Your task to perform on an android device: open app "Google Photos" (install if not already installed) Image 0: 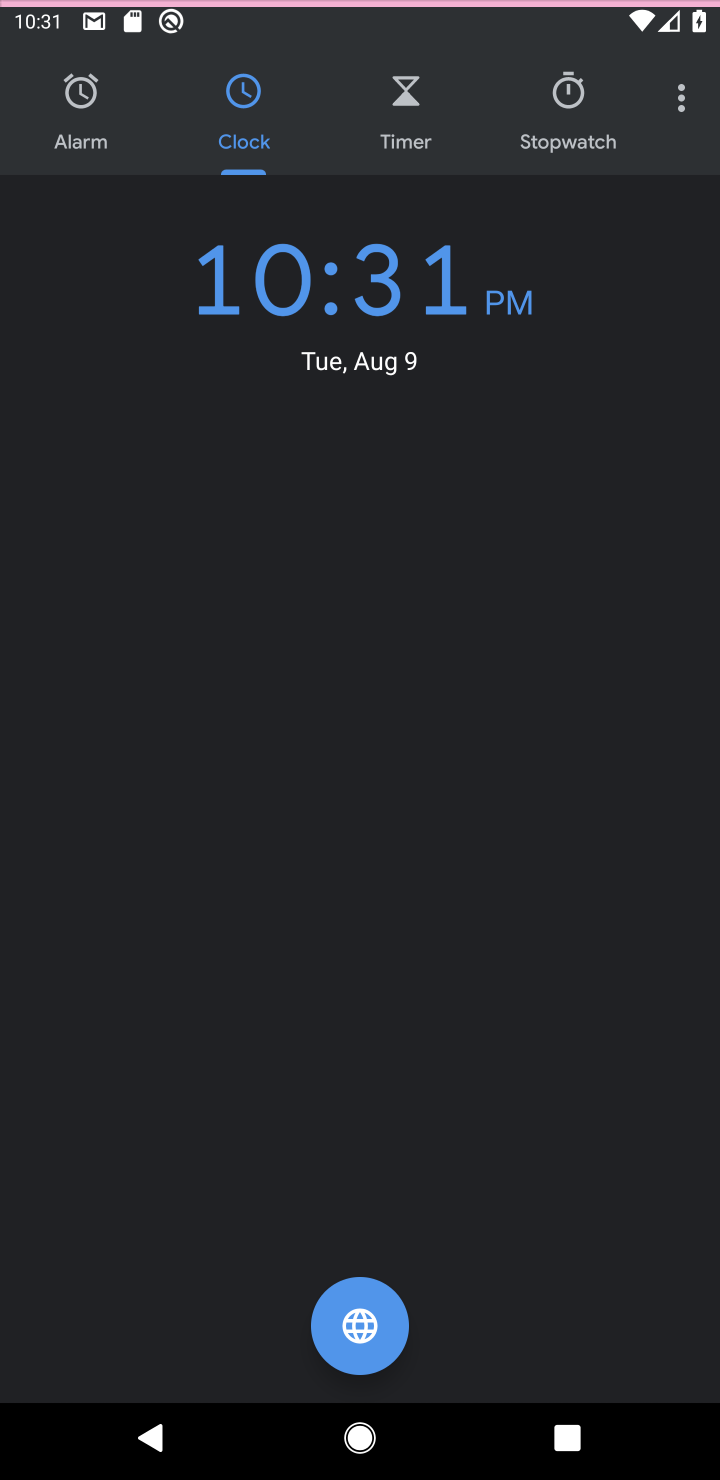
Step 0: press home button
Your task to perform on an android device: open app "Google Photos" (install if not already installed) Image 1: 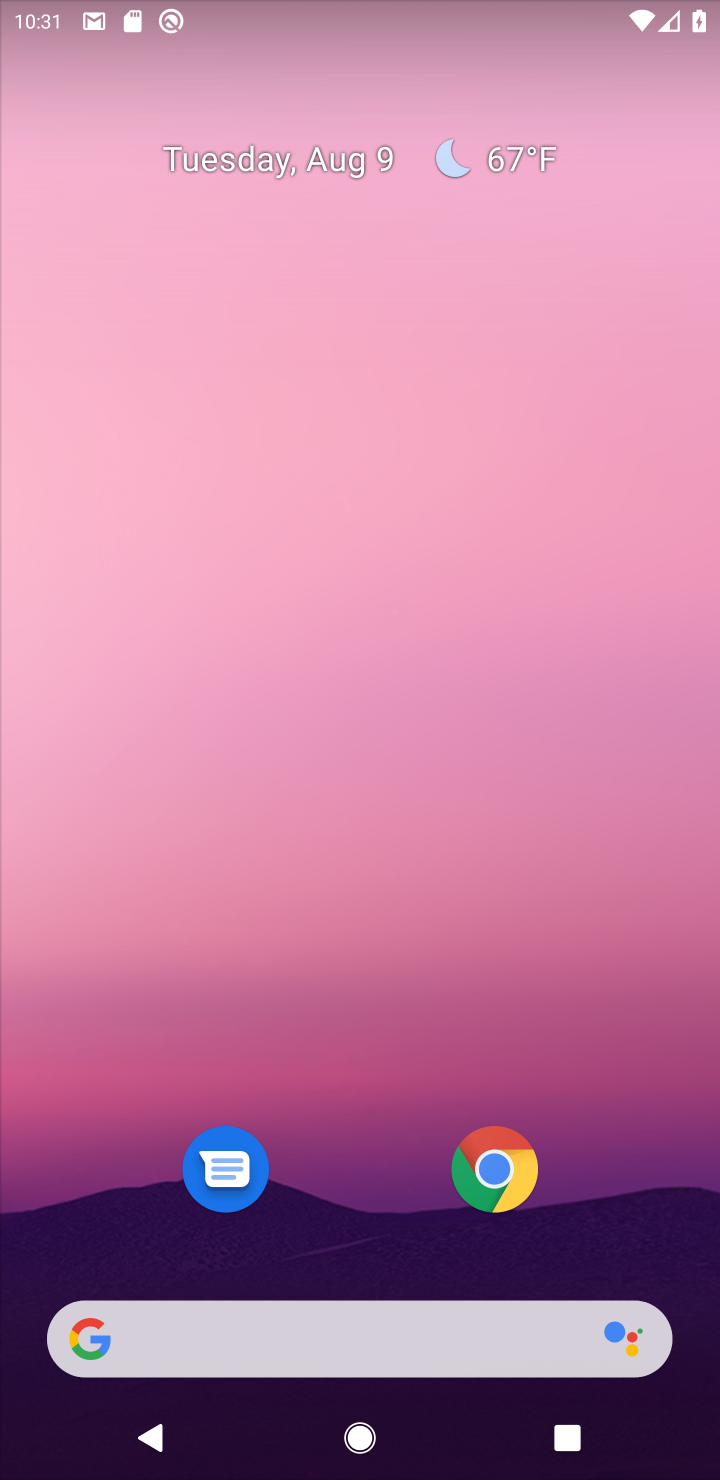
Step 1: drag from (616, 1170) to (665, 118)
Your task to perform on an android device: open app "Google Photos" (install if not already installed) Image 2: 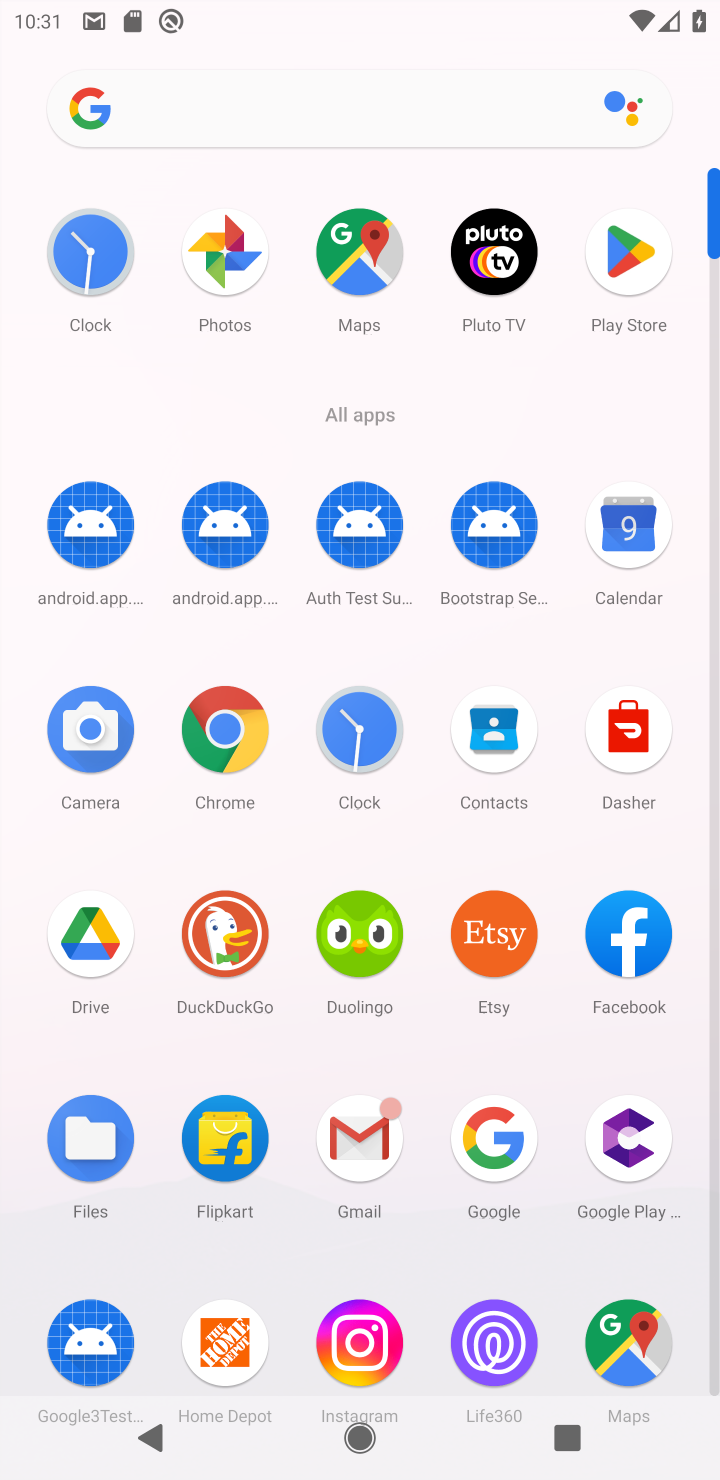
Step 2: click (640, 253)
Your task to perform on an android device: open app "Google Photos" (install if not already installed) Image 3: 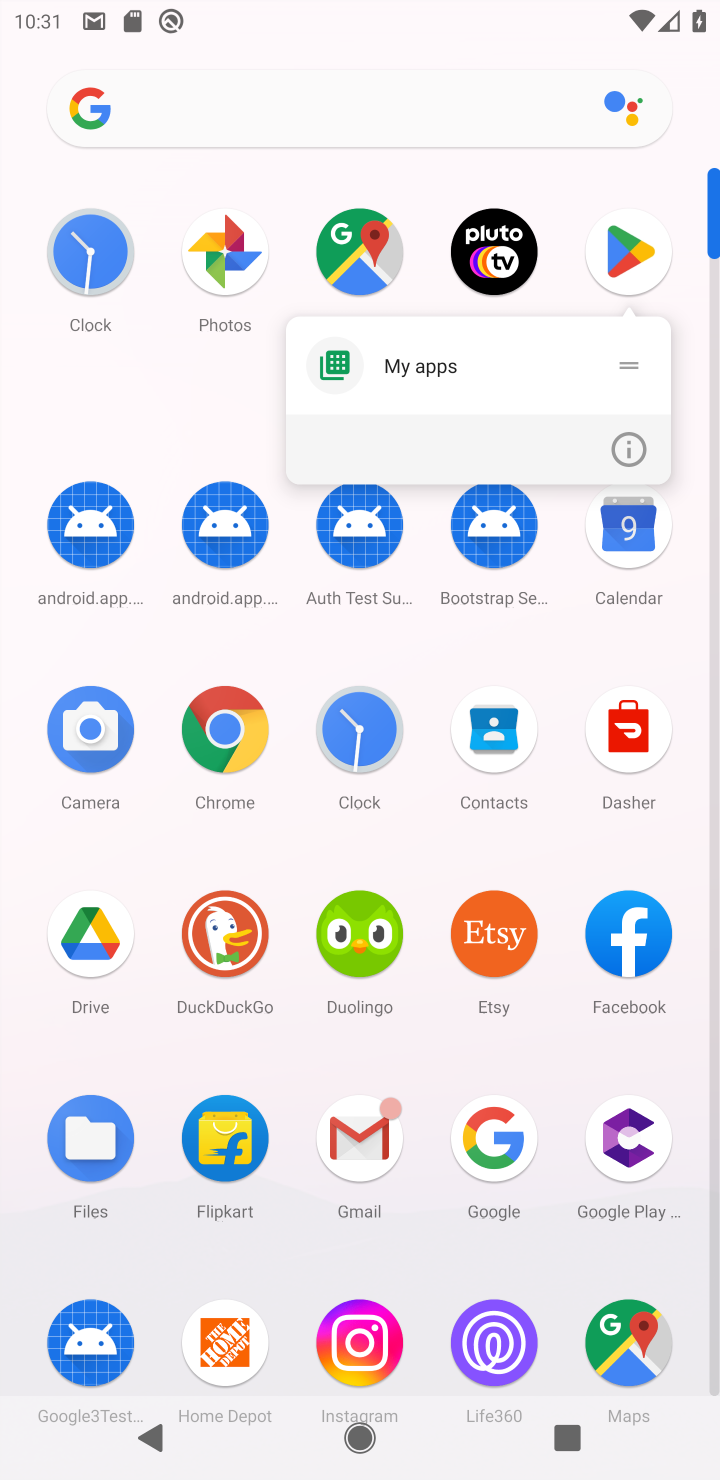
Step 3: click (627, 231)
Your task to perform on an android device: open app "Google Photos" (install if not already installed) Image 4: 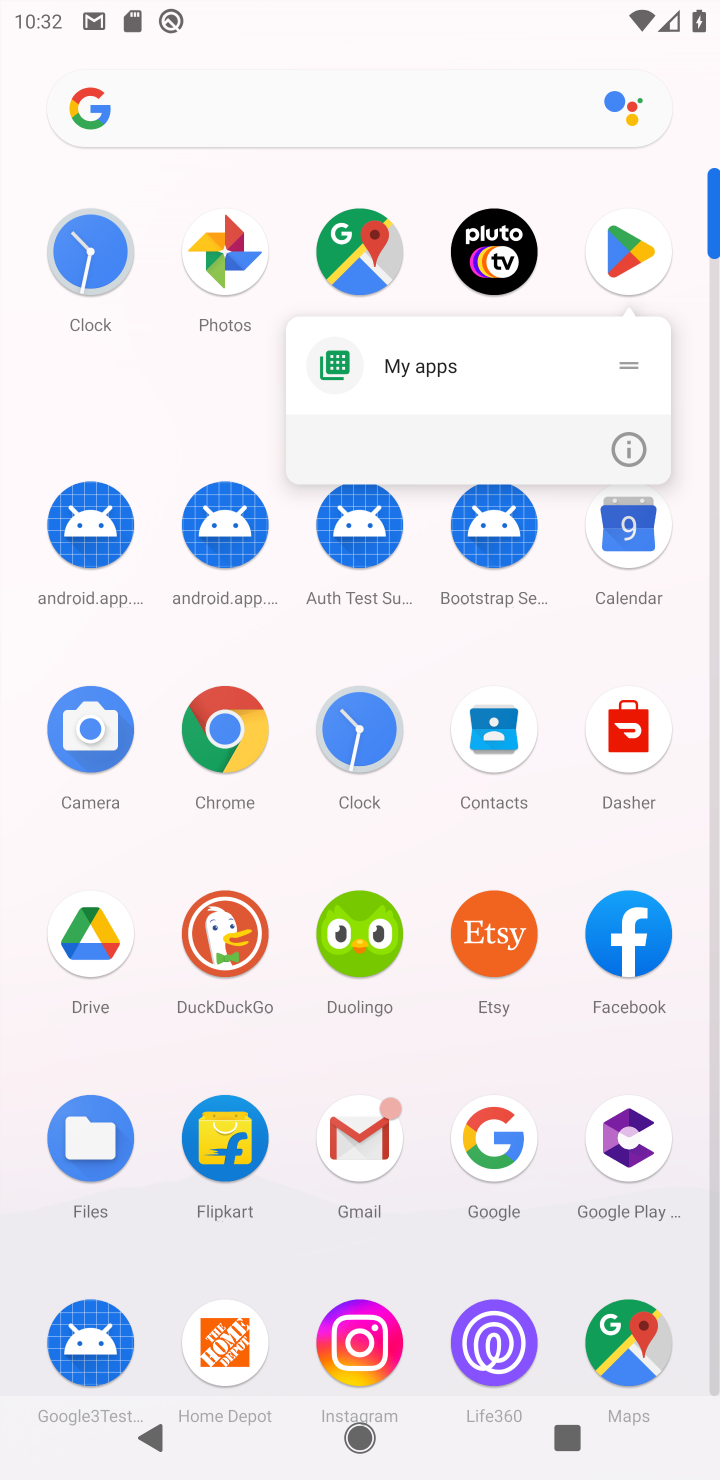
Step 4: click (639, 248)
Your task to perform on an android device: open app "Google Photos" (install if not already installed) Image 5: 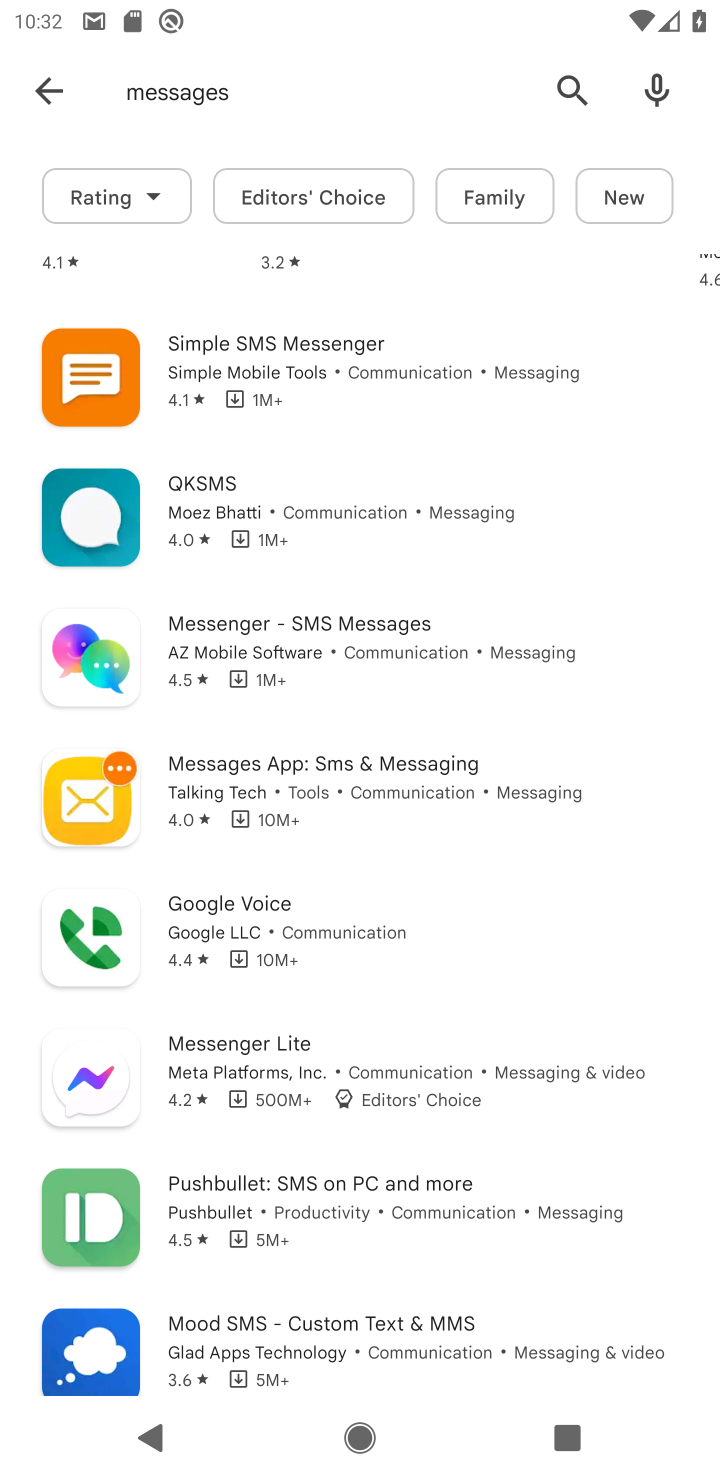
Step 5: click (571, 91)
Your task to perform on an android device: open app "Google Photos" (install if not already installed) Image 6: 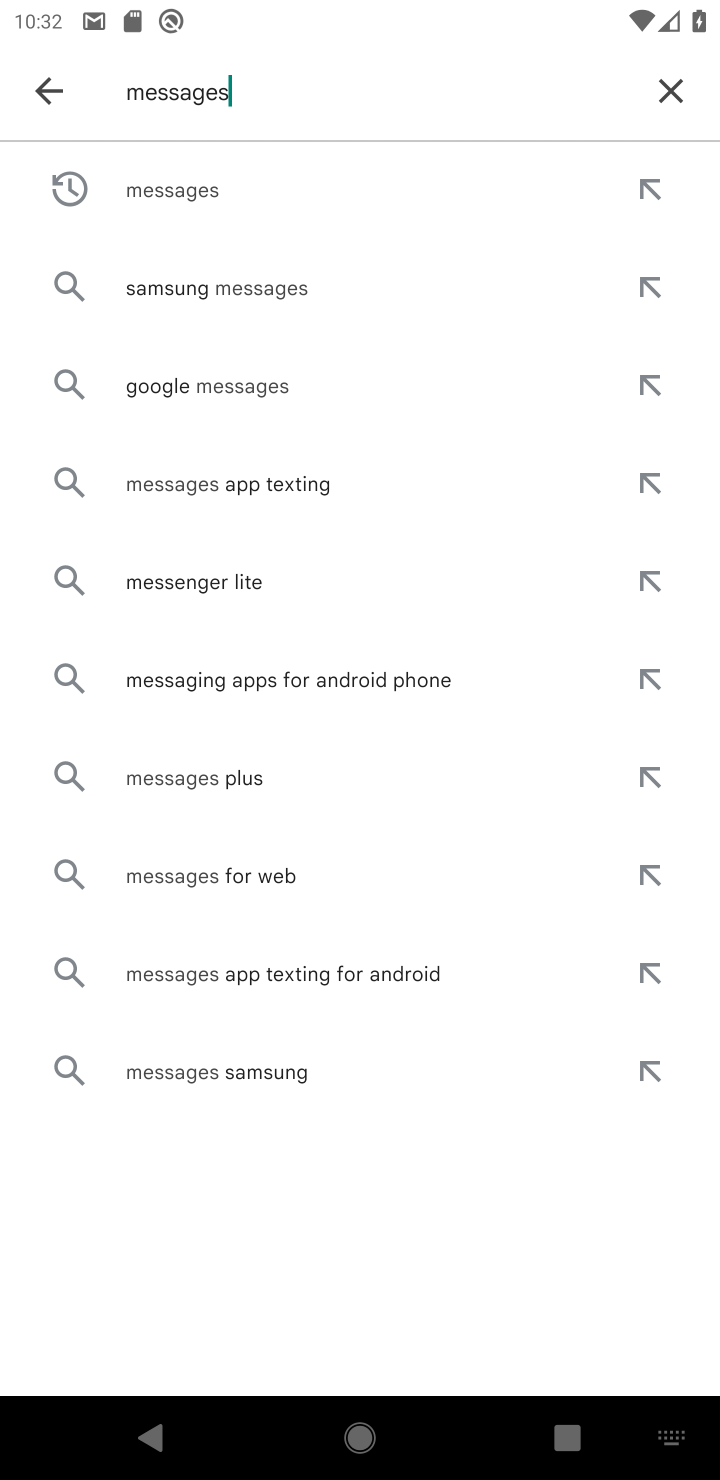
Step 6: click (663, 73)
Your task to perform on an android device: open app "Google Photos" (install if not already installed) Image 7: 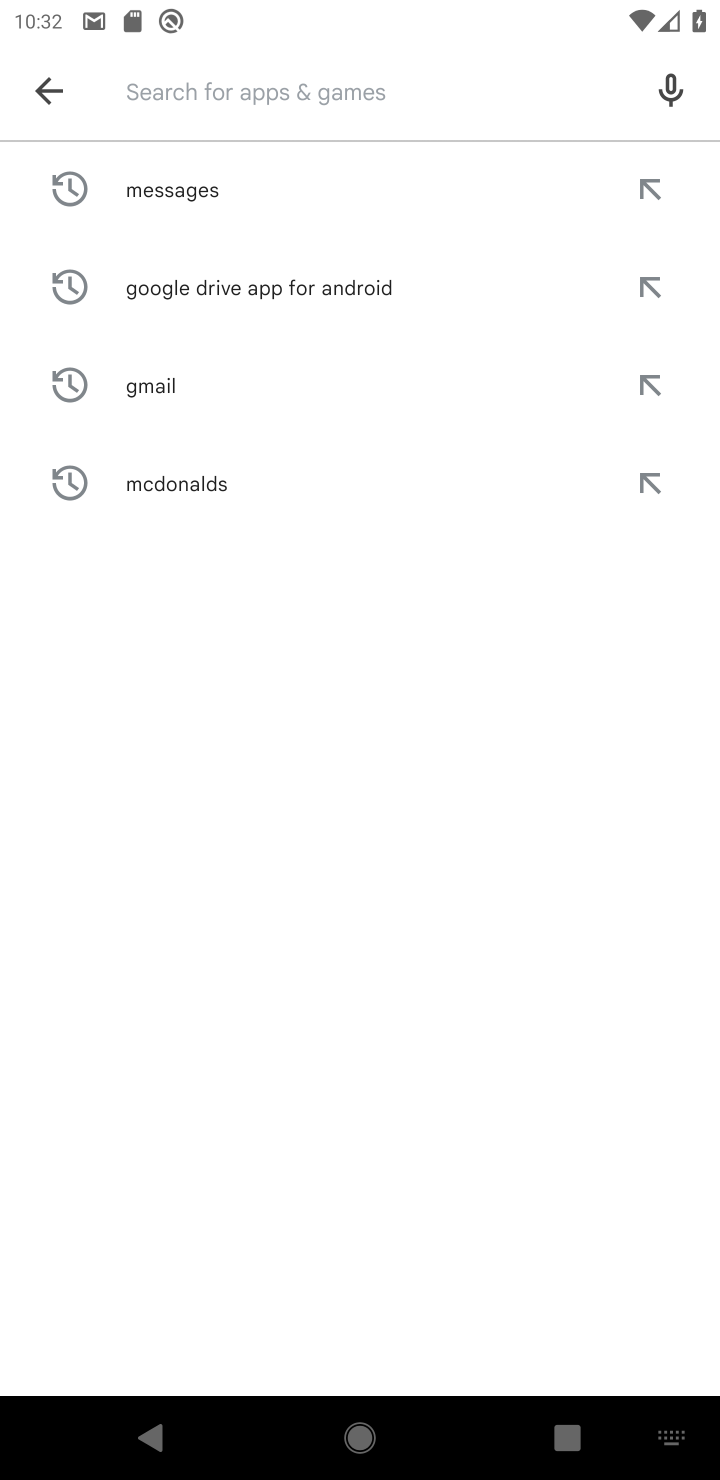
Step 7: type "google photos"
Your task to perform on an android device: open app "Google Photos" (install if not already installed) Image 8: 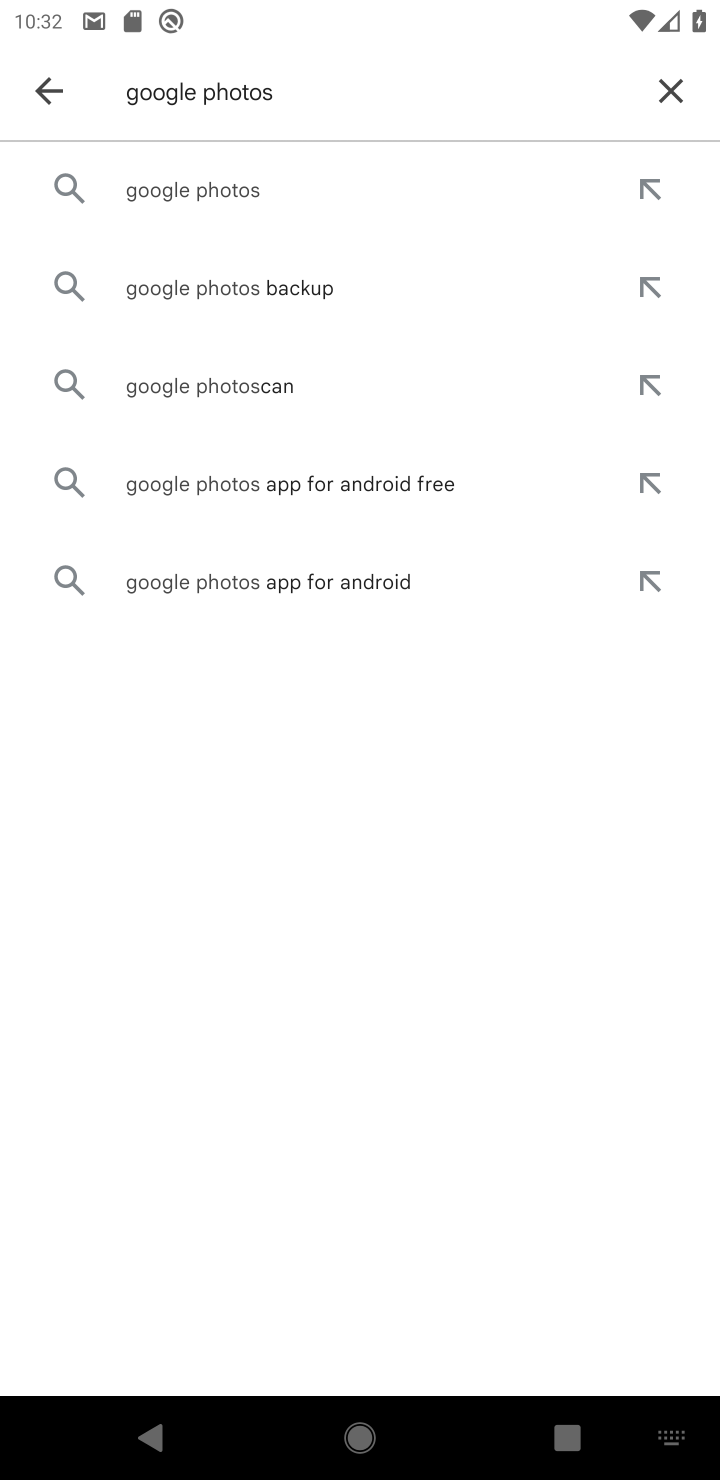
Step 8: click (259, 183)
Your task to perform on an android device: open app "Google Photos" (install if not already installed) Image 9: 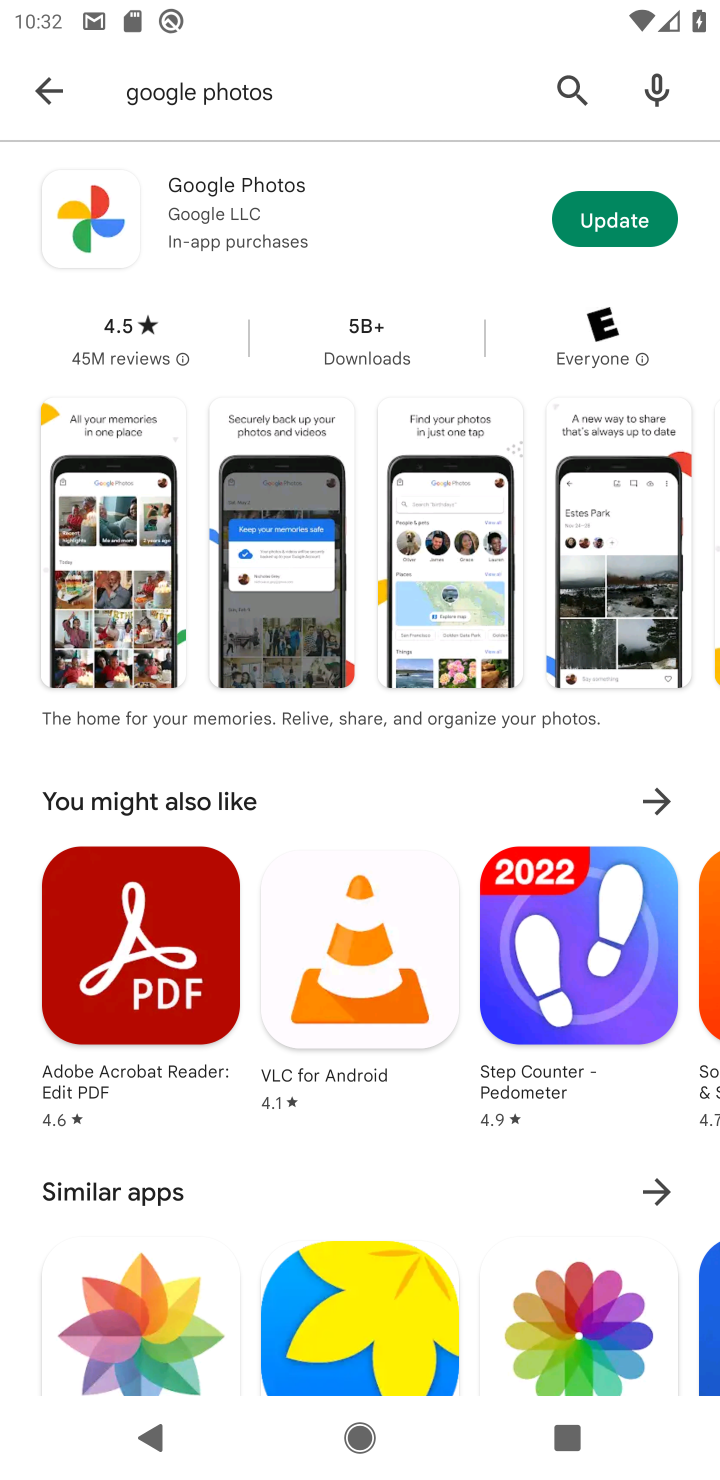
Step 9: click (630, 226)
Your task to perform on an android device: open app "Google Photos" (install if not already installed) Image 10: 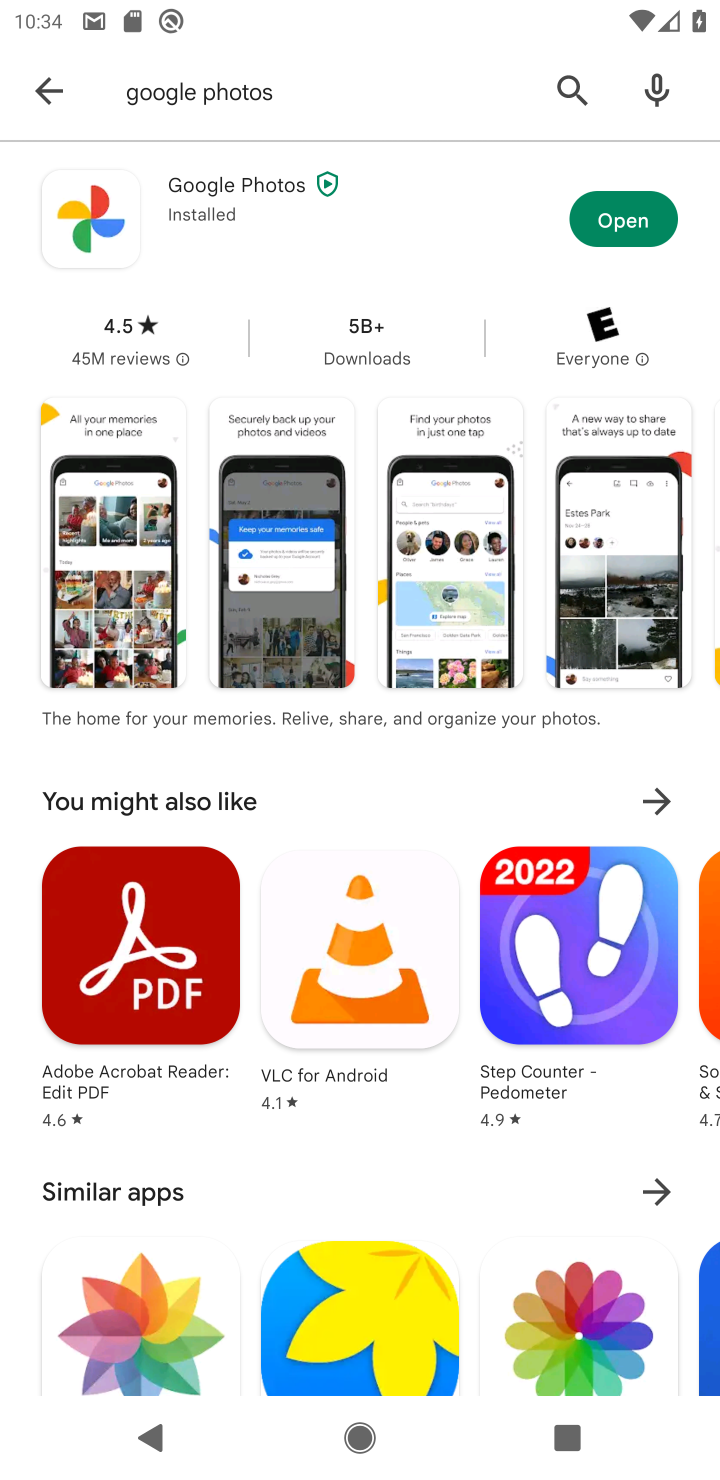
Step 10: click (631, 231)
Your task to perform on an android device: open app "Google Photos" (install if not already installed) Image 11: 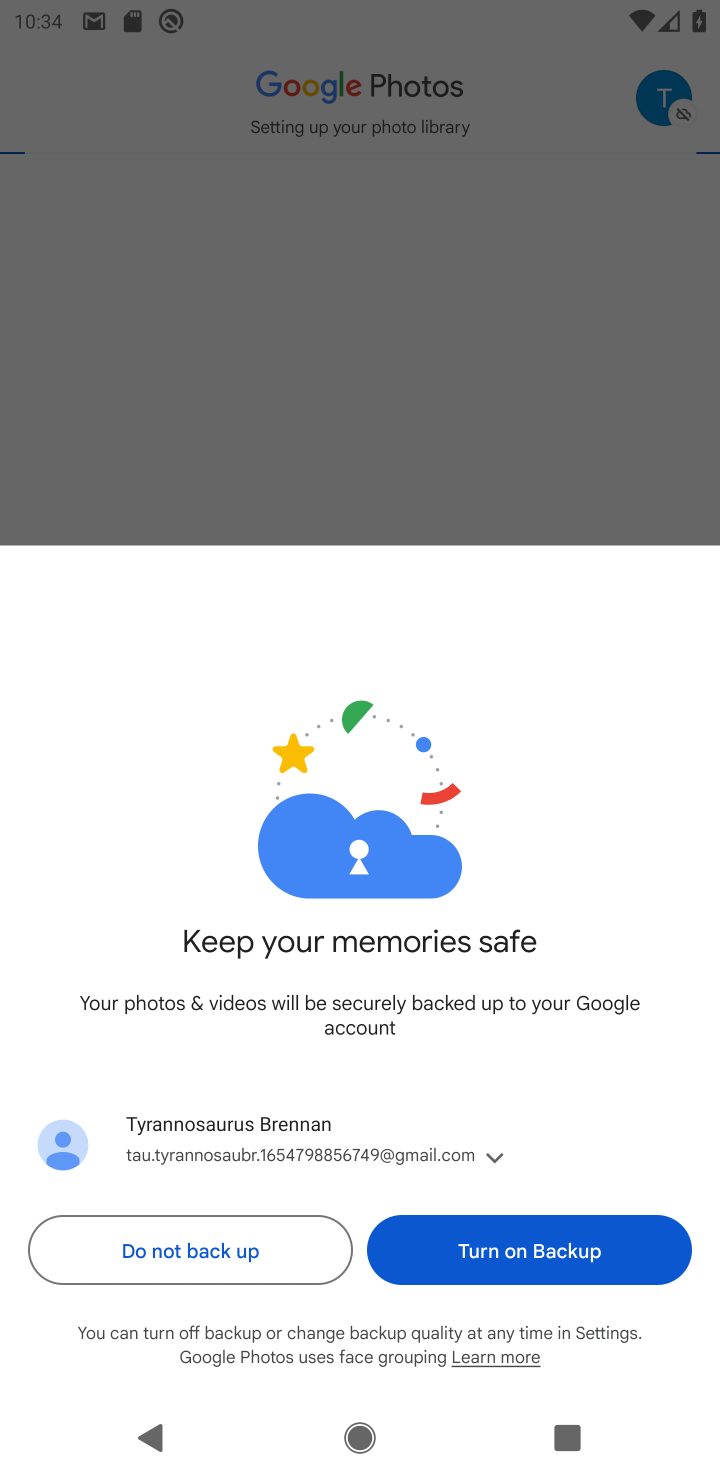
Step 11: click (193, 1251)
Your task to perform on an android device: open app "Google Photos" (install if not already installed) Image 12: 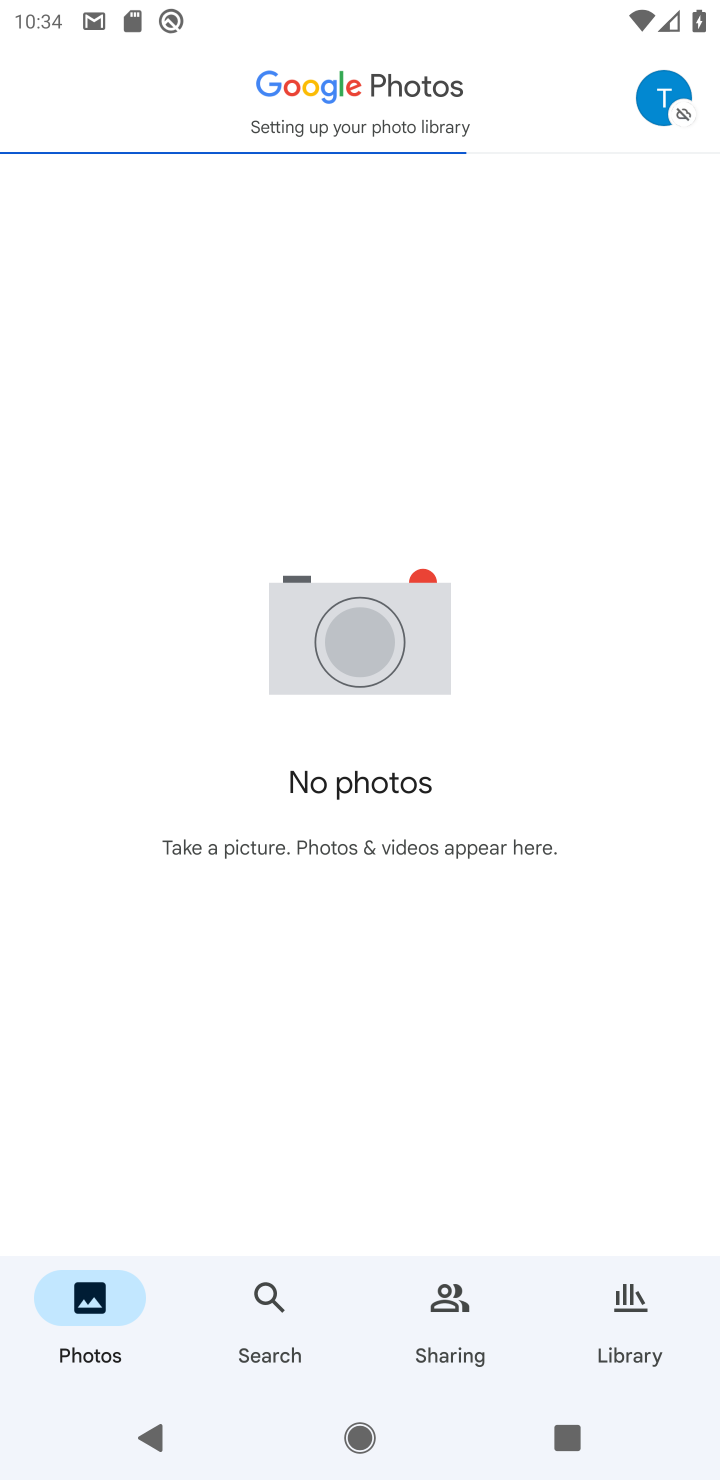
Step 12: task complete